Your task to perform on an android device: Turn off the flashlight Image 0: 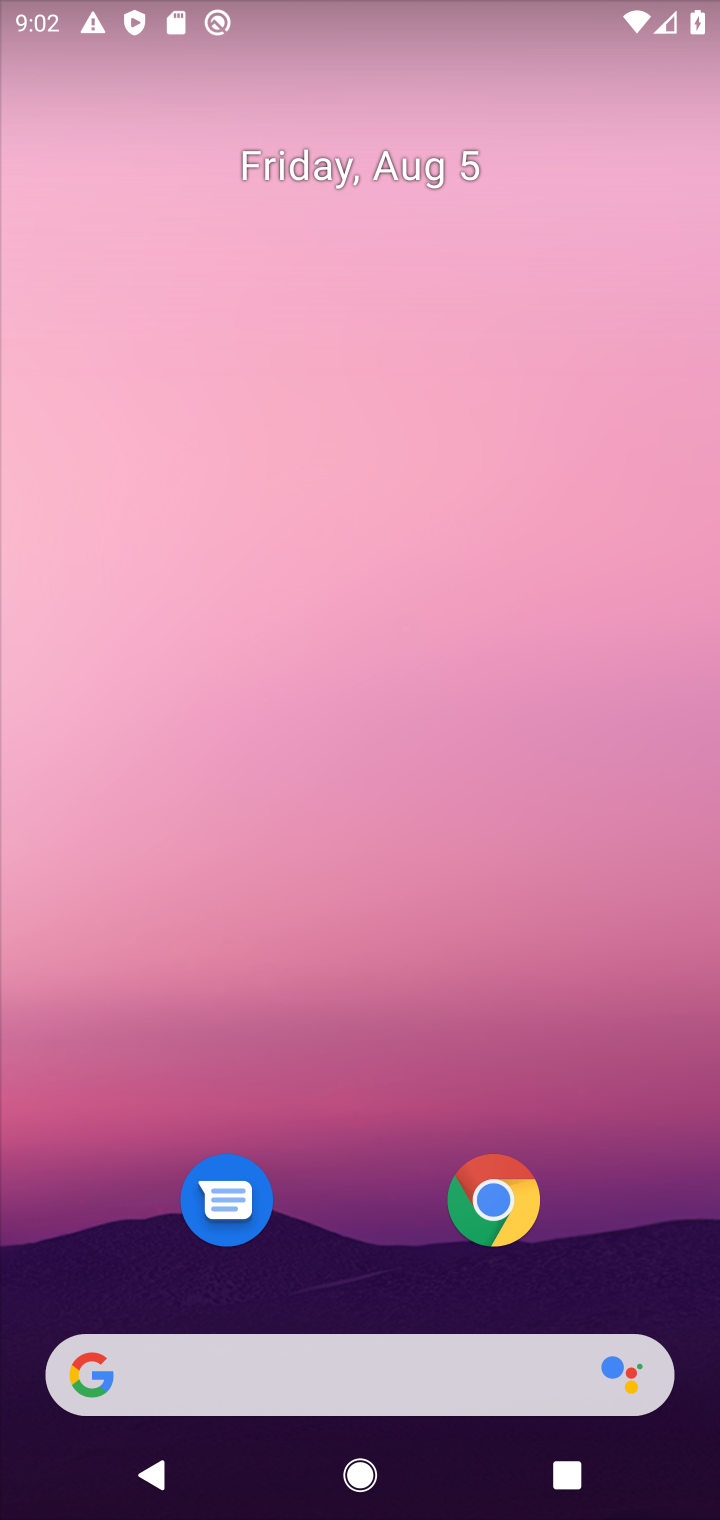
Step 0: drag from (402, 1184) to (445, 233)
Your task to perform on an android device: Turn off the flashlight Image 1: 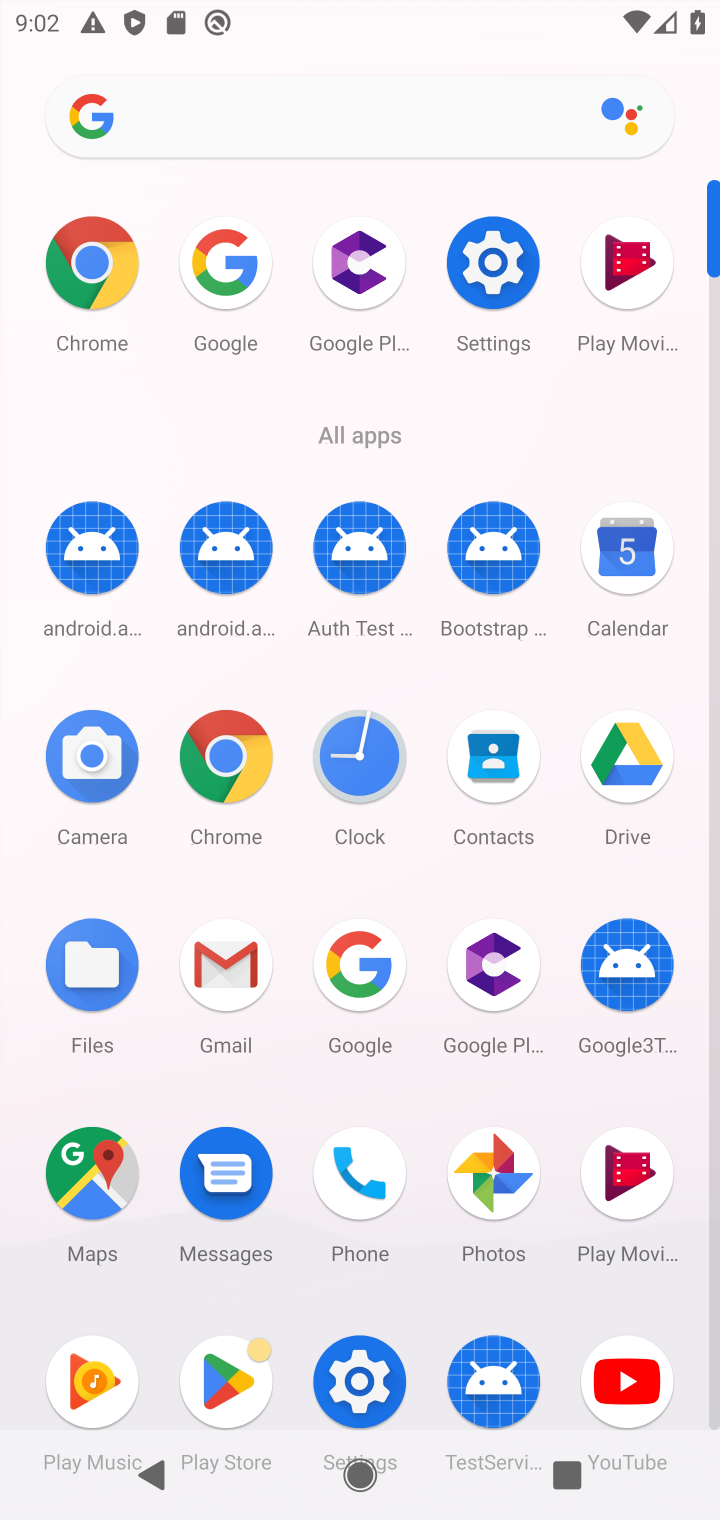
Step 1: click (486, 247)
Your task to perform on an android device: Turn off the flashlight Image 2: 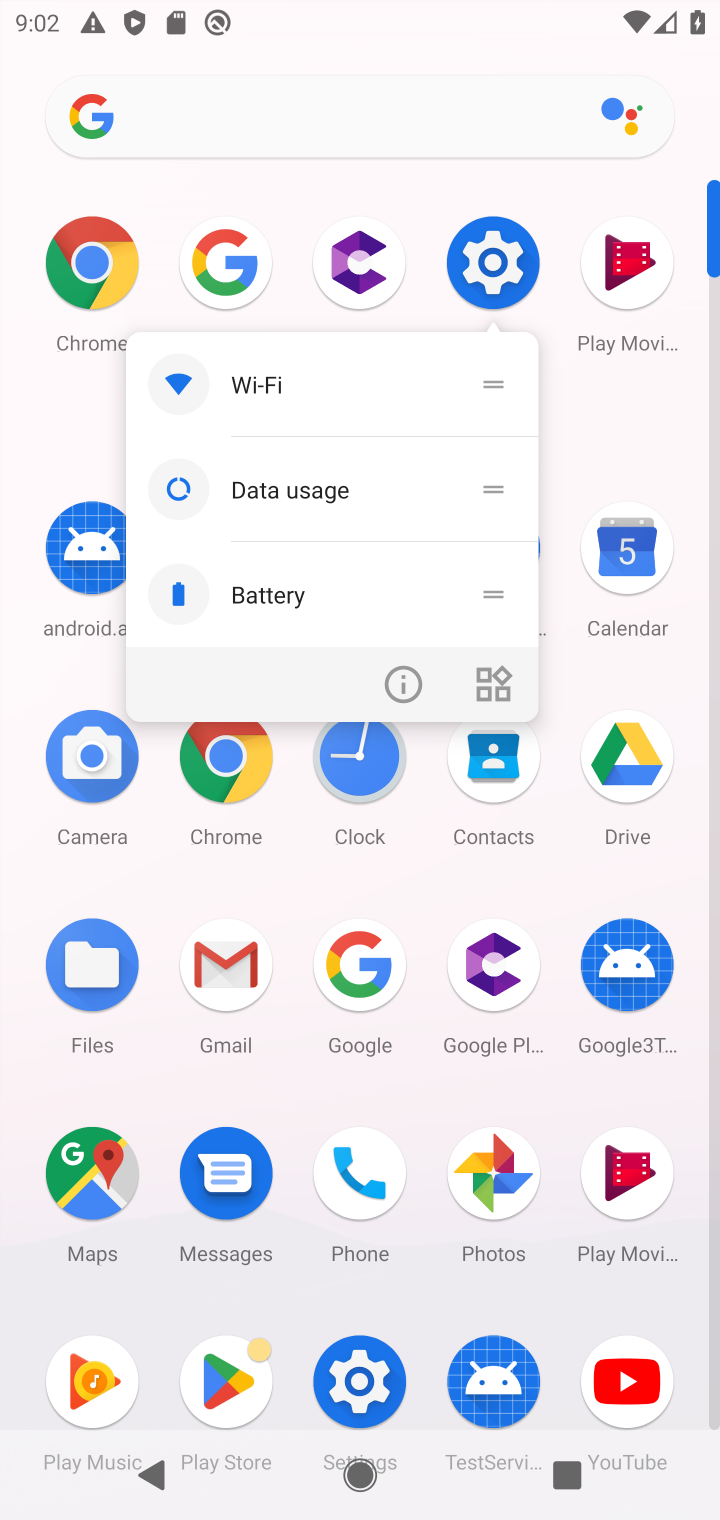
Step 2: click (391, 1394)
Your task to perform on an android device: Turn off the flashlight Image 3: 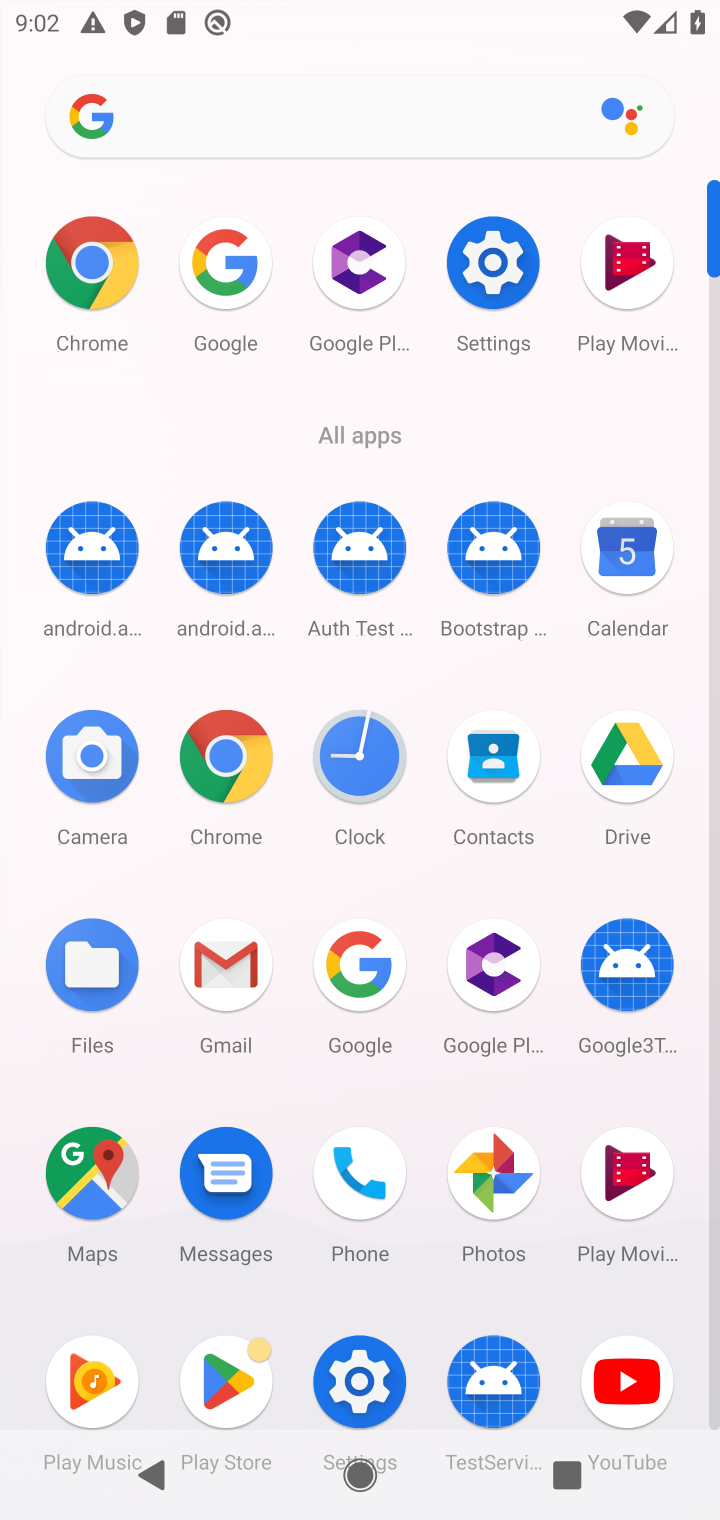
Step 3: click (333, 1392)
Your task to perform on an android device: Turn off the flashlight Image 4: 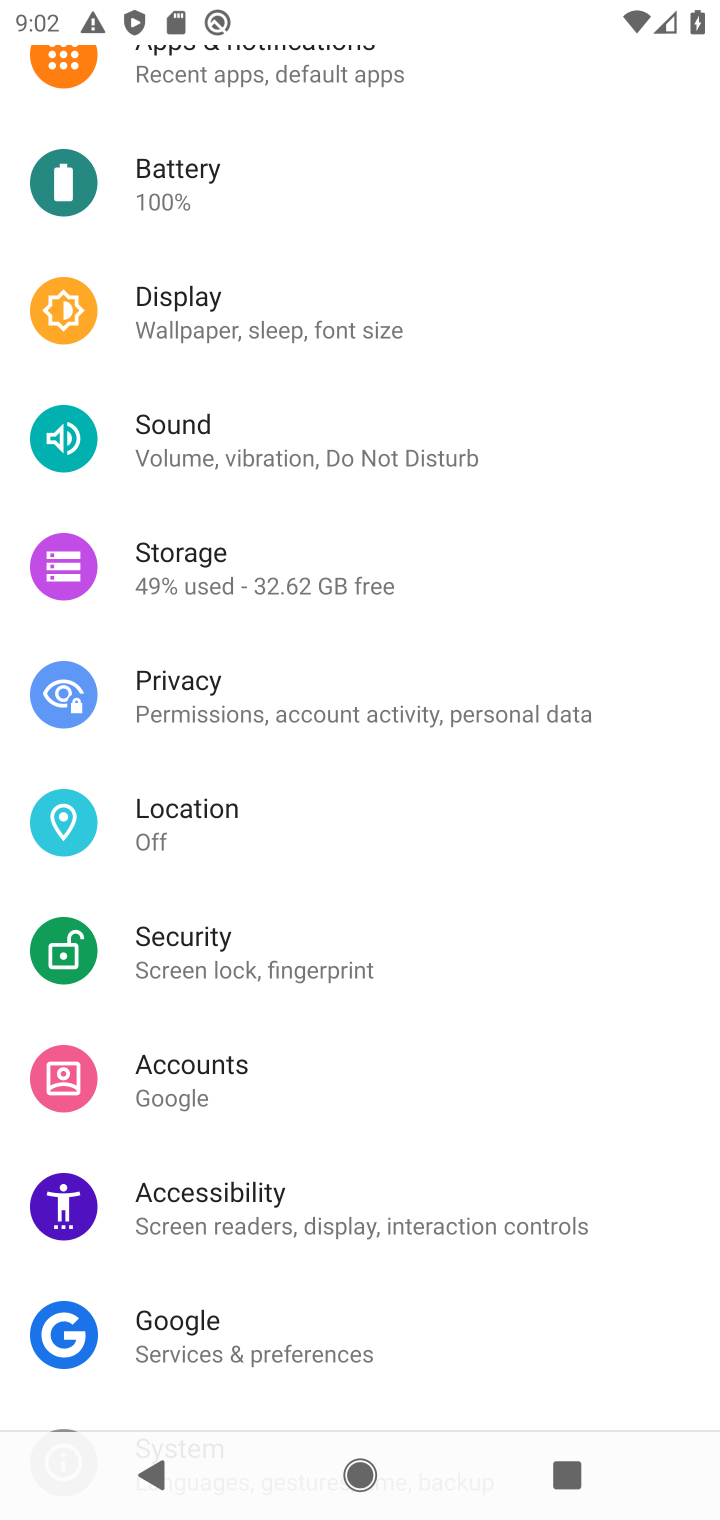
Step 4: click (292, 324)
Your task to perform on an android device: Turn off the flashlight Image 5: 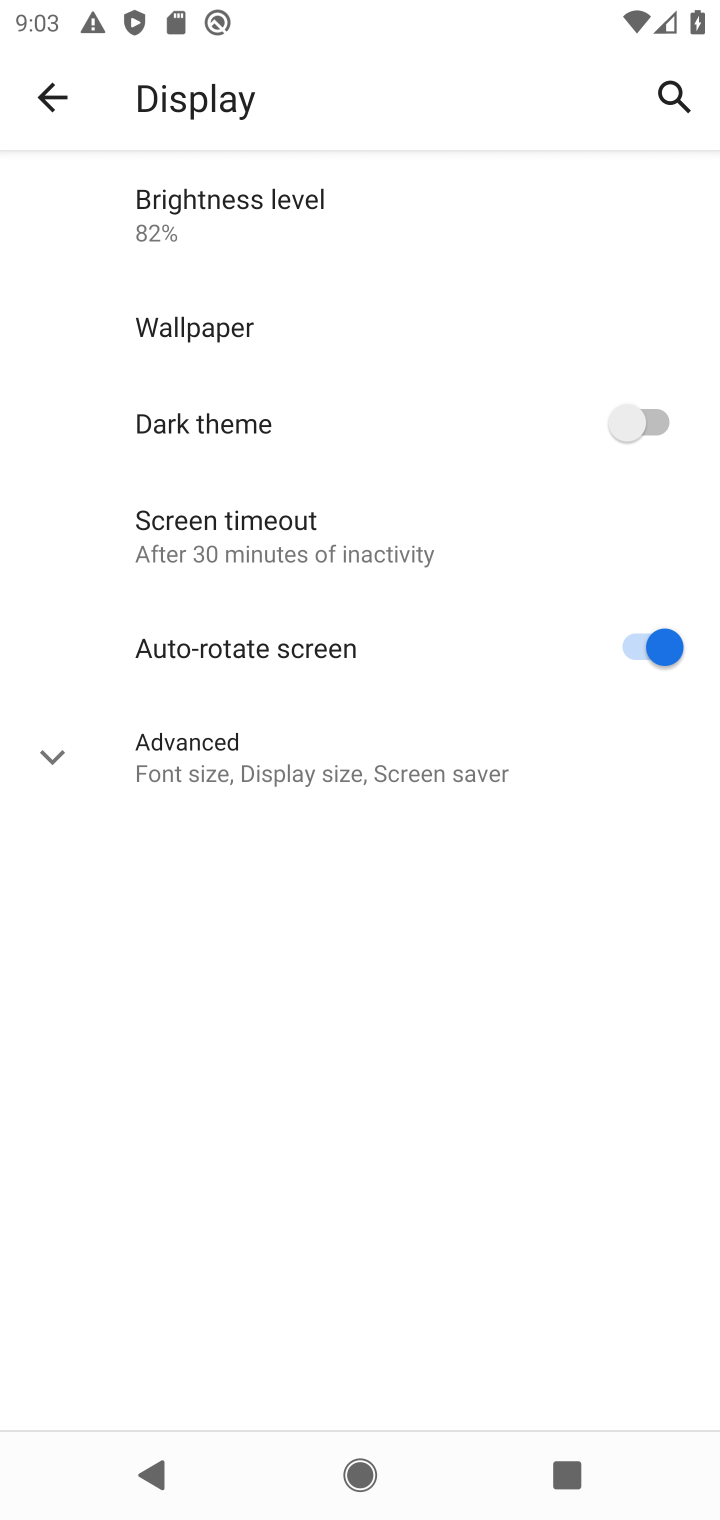
Step 5: click (186, 520)
Your task to perform on an android device: Turn off the flashlight Image 6: 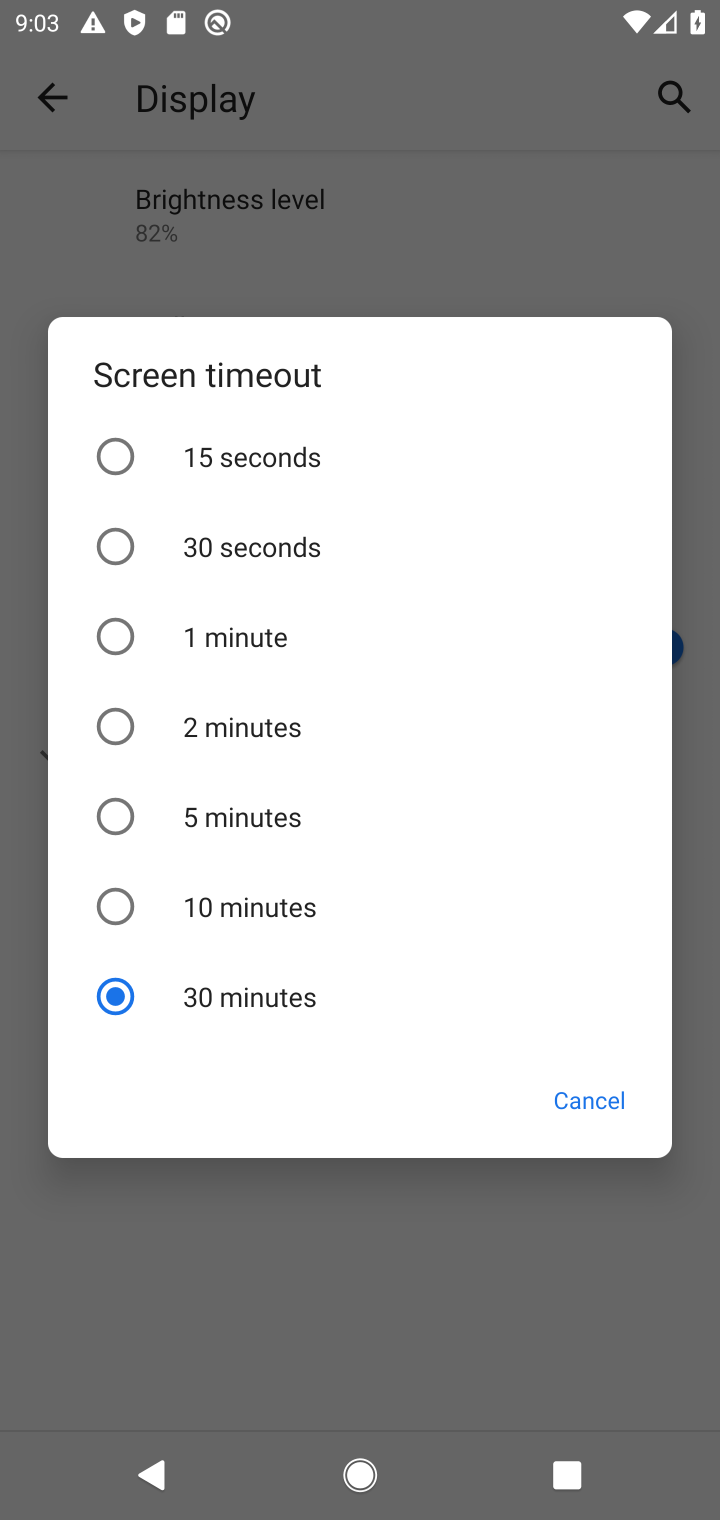
Step 6: task complete